Your task to perform on an android device: What is the recent news? Image 0: 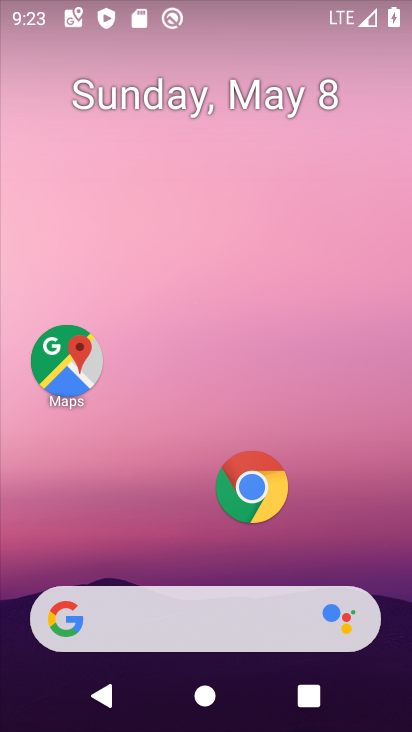
Step 0: click (214, 622)
Your task to perform on an android device: What is the recent news? Image 1: 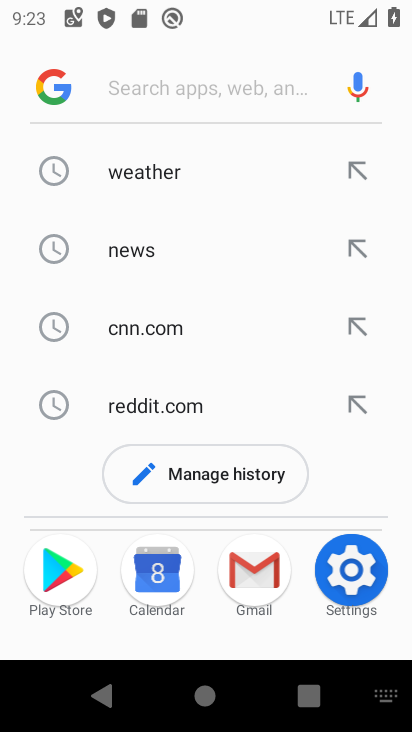
Step 1: click (136, 247)
Your task to perform on an android device: What is the recent news? Image 2: 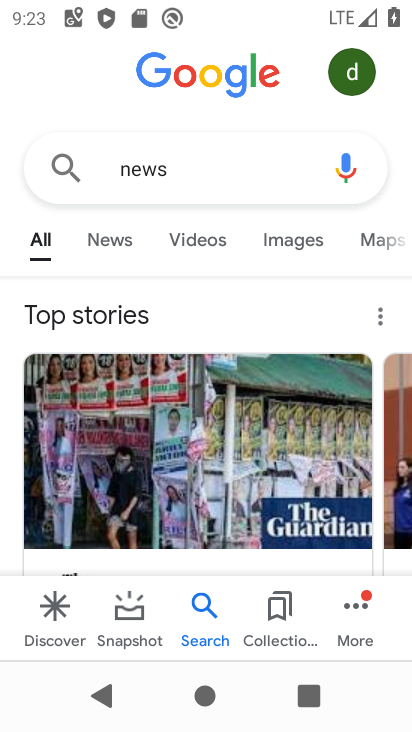
Step 2: click (113, 236)
Your task to perform on an android device: What is the recent news? Image 3: 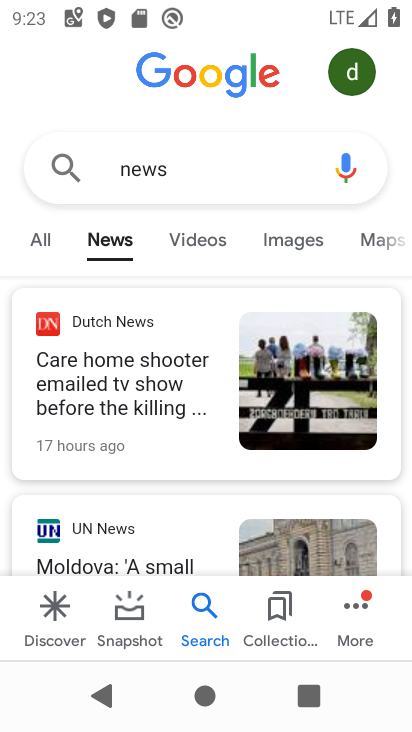
Step 3: task complete